Your task to perform on an android device: Go to Maps Image 0: 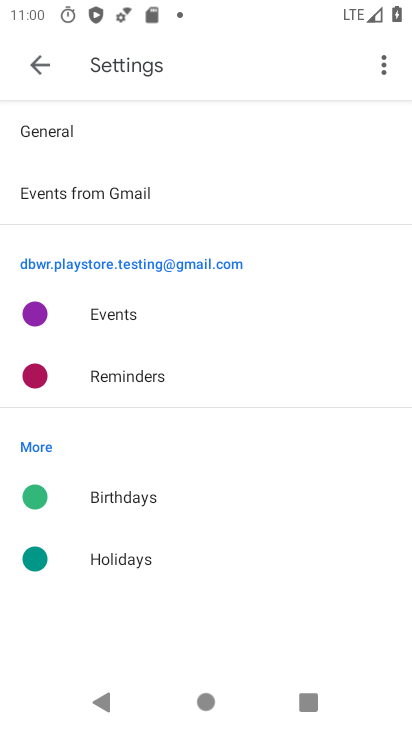
Step 0: press home button
Your task to perform on an android device: Go to Maps Image 1: 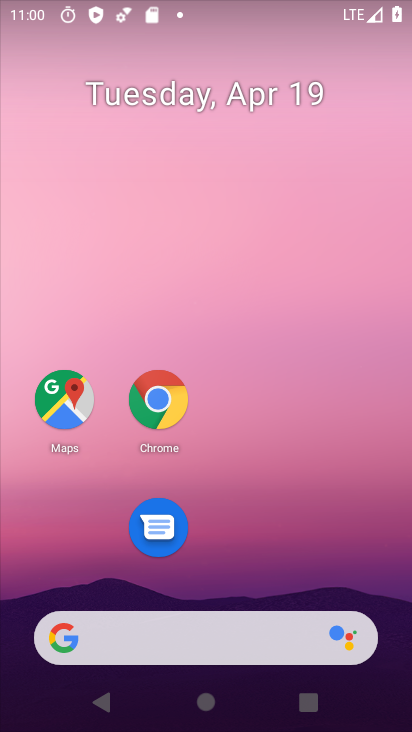
Step 1: drag from (237, 621) to (223, 0)
Your task to perform on an android device: Go to Maps Image 2: 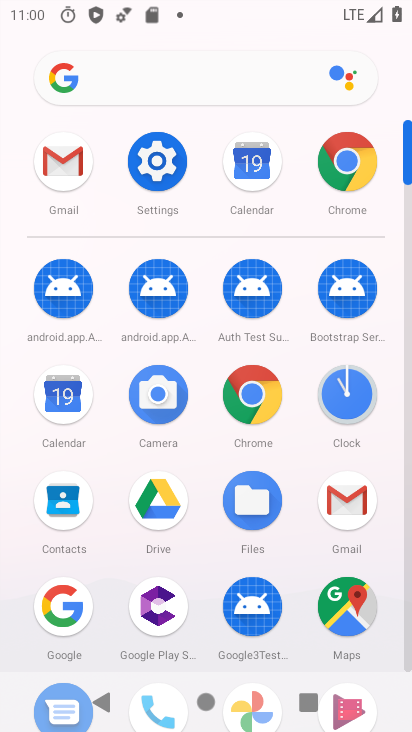
Step 2: click (344, 604)
Your task to perform on an android device: Go to Maps Image 3: 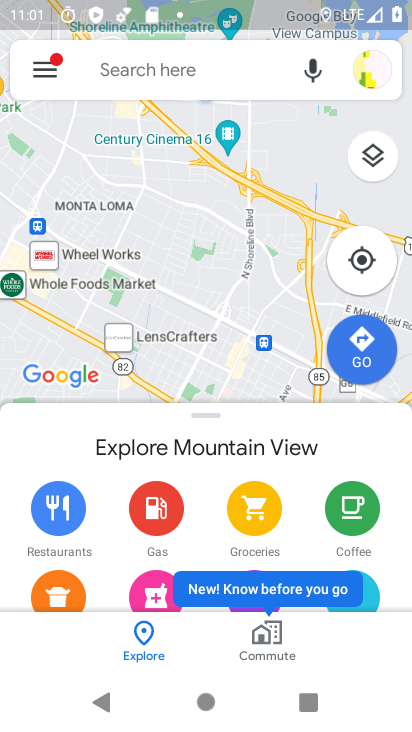
Step 3: click (203, 280)
Your task to perform on an android device: Go to Maps Image 4: 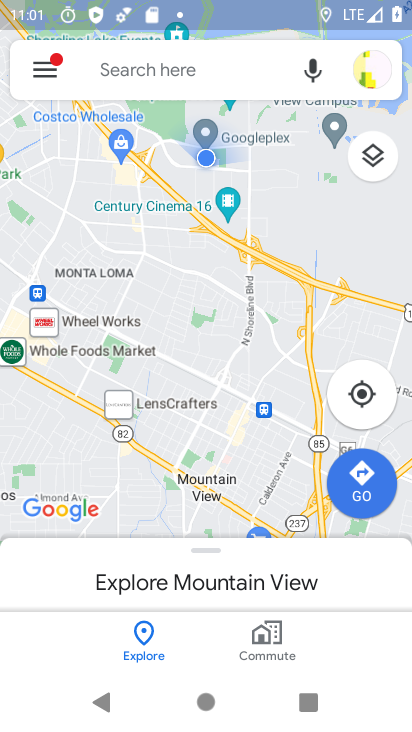
Step 4: task complete